Your task to perform on an android device: Go to settings Image 0: 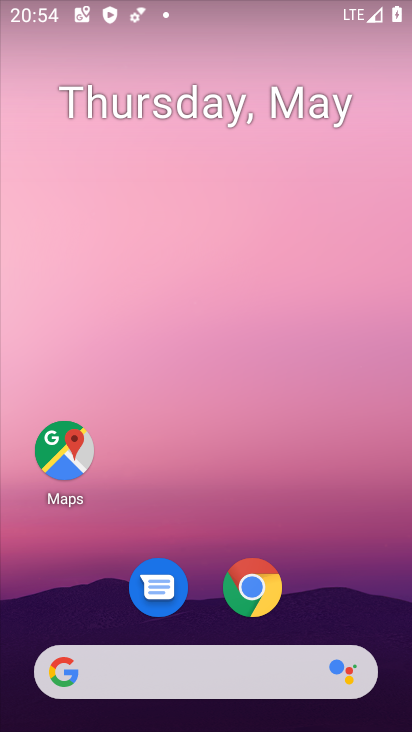
Step 0: drag from (124, 731) to (248, 173)
Your task to perform on an android device: Go to settings Image 1: 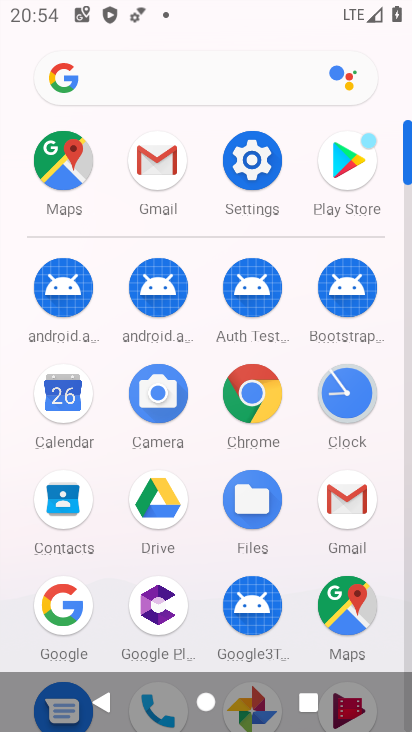
Step 1: click (248, 181)
Your task to perform on an android device: Go to settings Image 2: 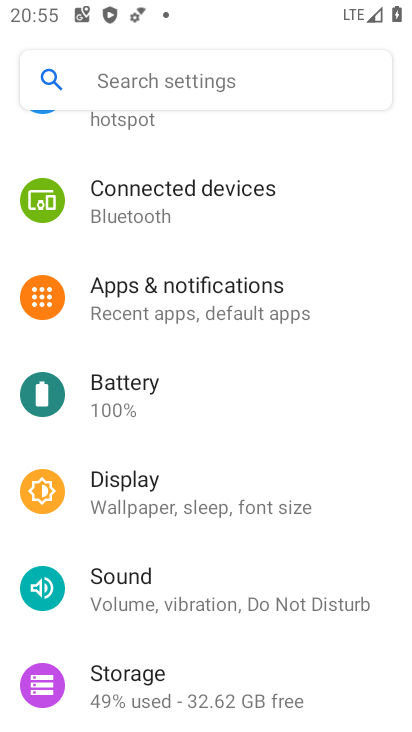
Step 2: task complete